Your task to perform on an android device: check the backup settings in the google photos Image 0: 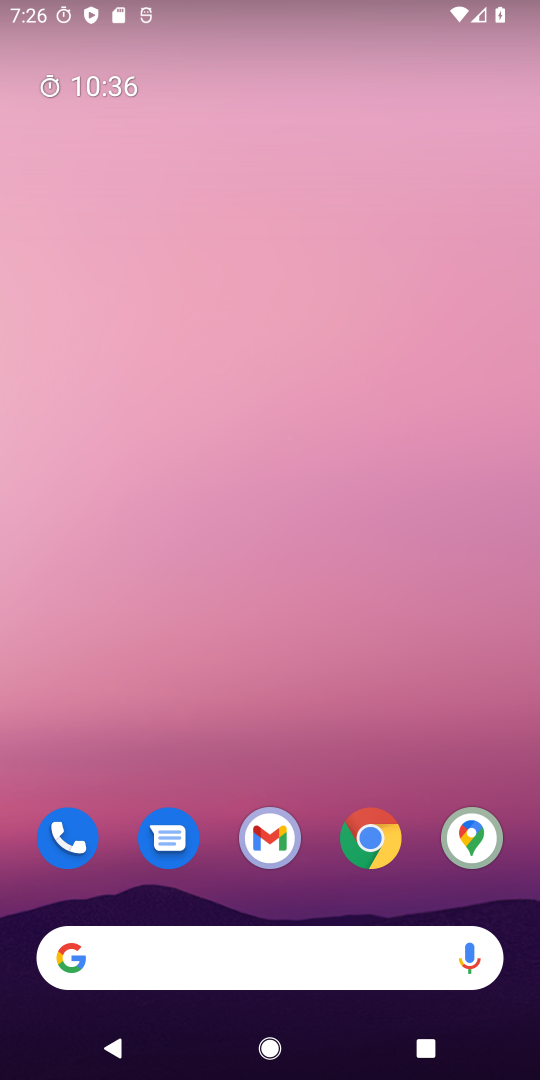
Step 0: drag from (298, 703) to (379, 95)
Your task to perform on an android device: check the backup settings in the google photos Image 1: 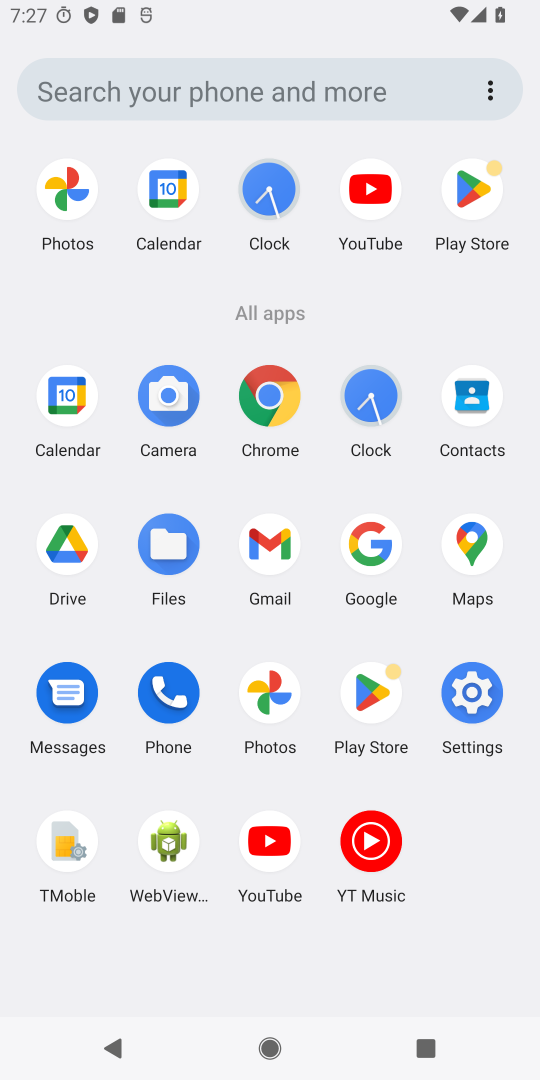
Step 1: click (485, 705)
Your task to perform on an android device: check the backup settings in the google photos Image 2: 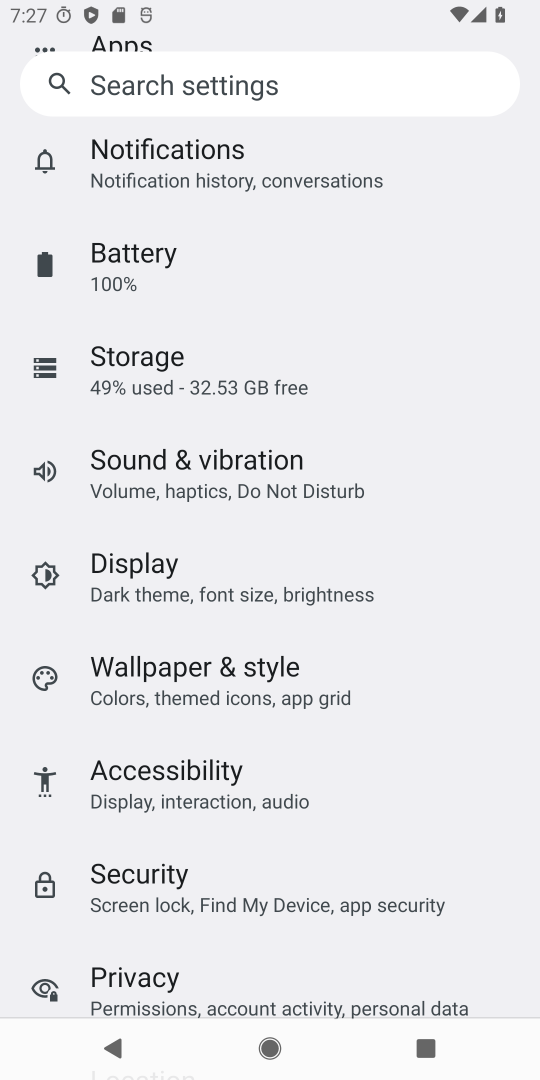
Step 2: press home button
Your task to perform on an android device: check the backup settings in the google photos Image 3: 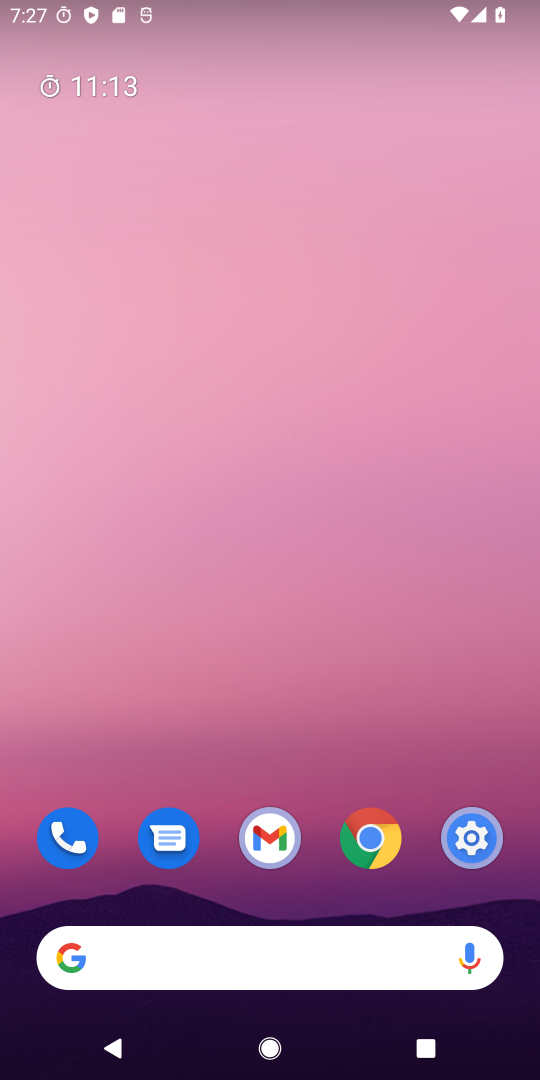
Step 3: drag from (293, 864) to (493, 94)
Your task to perform on an android device: check the backup settings in the google photos Image 4: 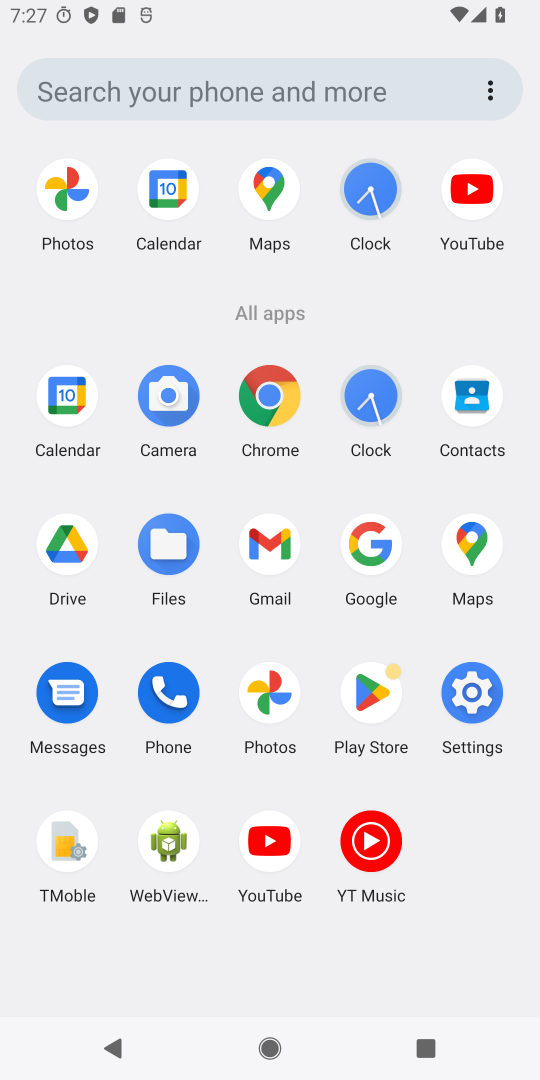
Step 4: click (271, 684)
Your task to perform on an android device: check the backup settings in the google photos Image 5: 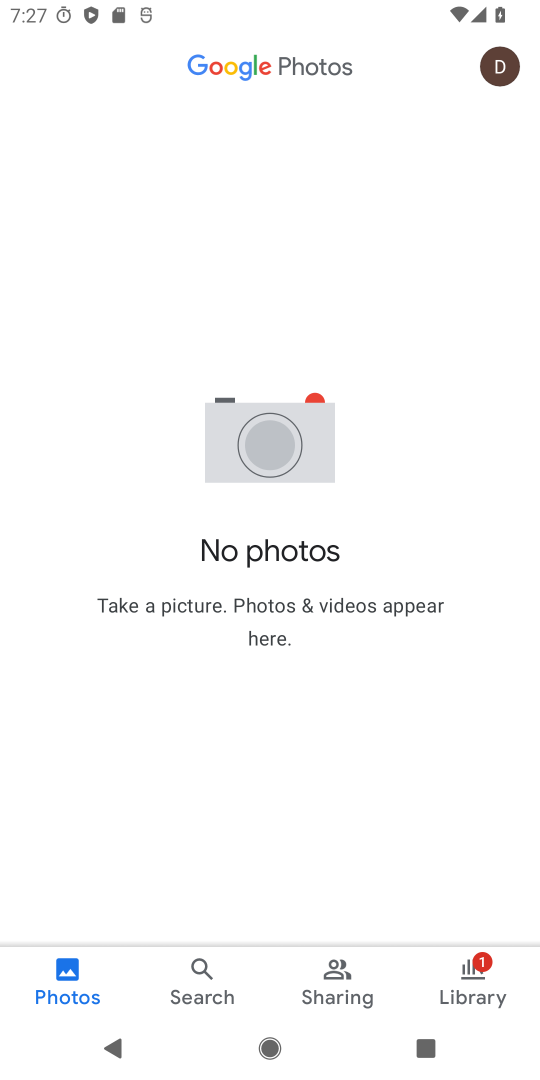
Step 5: click (509, 60)
Your task to perform on an android device: check the backup settings in the google photos Image 6: 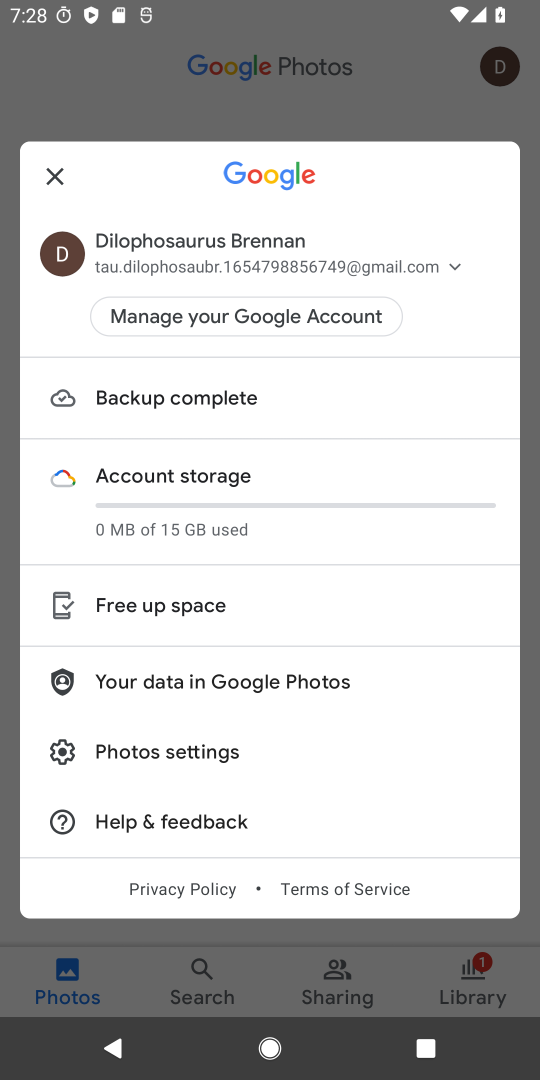
Step 6: click (204, 747)
Your task to perform on an android device: check the backup settings in the google photos Image 7: 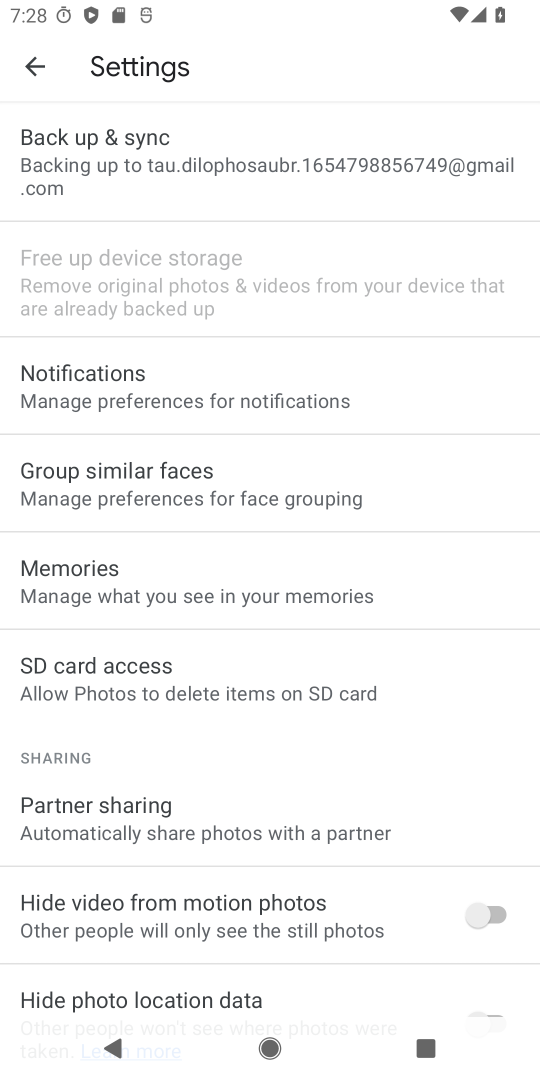
Step 7: task complete